Your task to perform on an android device: set the stopwatch Image 0: 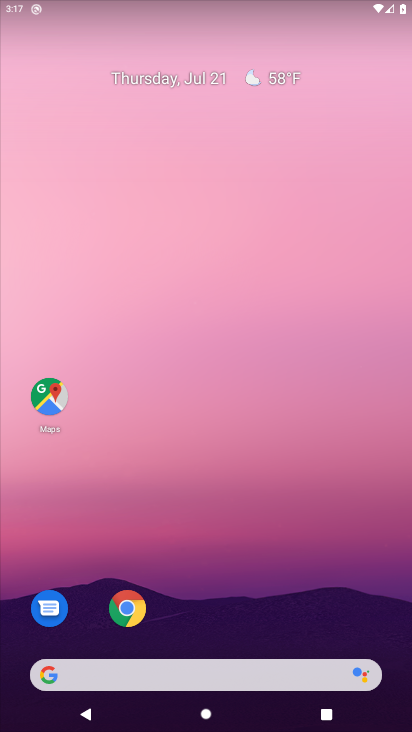
Step 0: drag from (216, 625) to (237, 155)
Your task to perform on an android device: set the stopwatch Image 1: 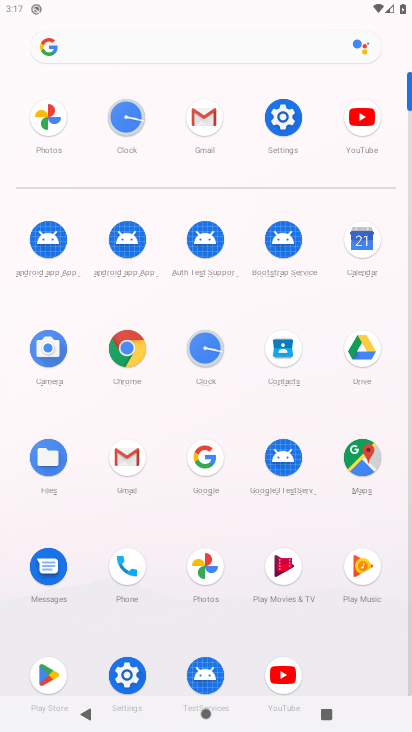
Step 1: click (209, 342)
Your task to perform on an android device: set the stopwatch Image 2: 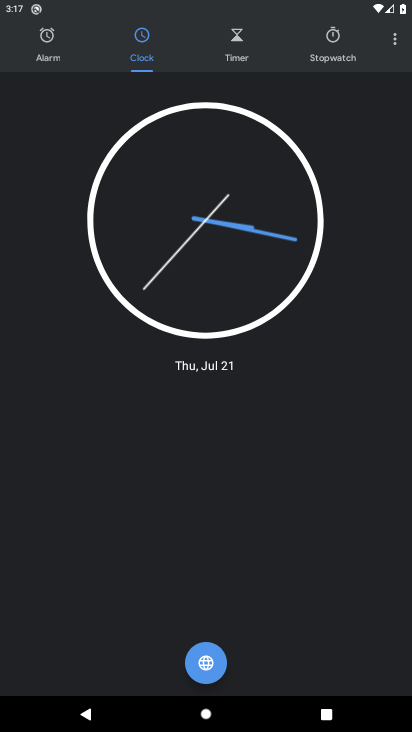
Step 2: click (335, 28)
Your task to perform on an android device: set the stopwatch Image 3: 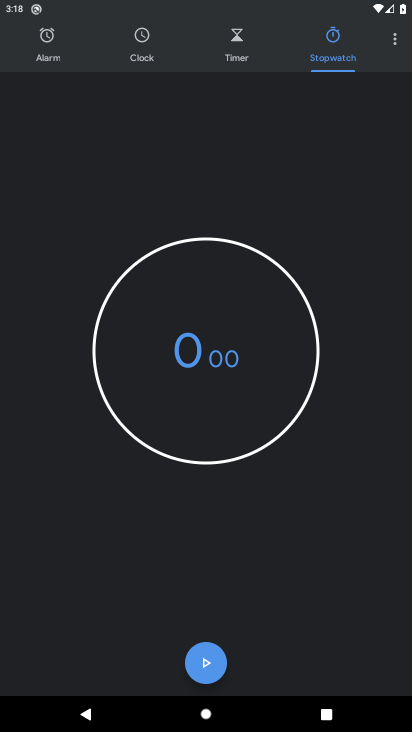
Step 3: click (199, 655)
Your task to perform on an android device: set the stopwatch Image 4: 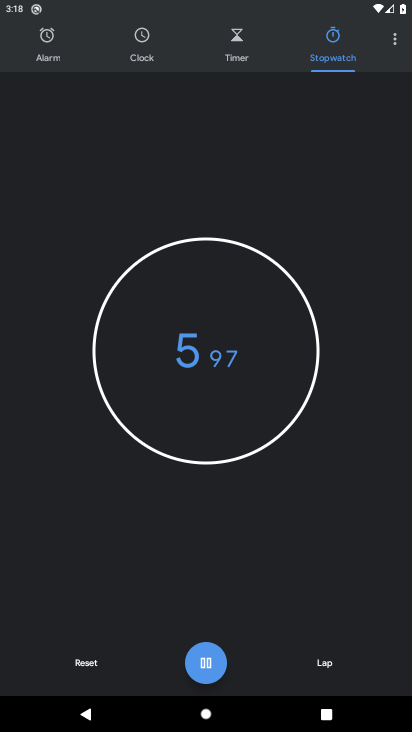
Step 4: task complete